Your task to perform on an android device: open app "Facebook Messenger" Image 0: 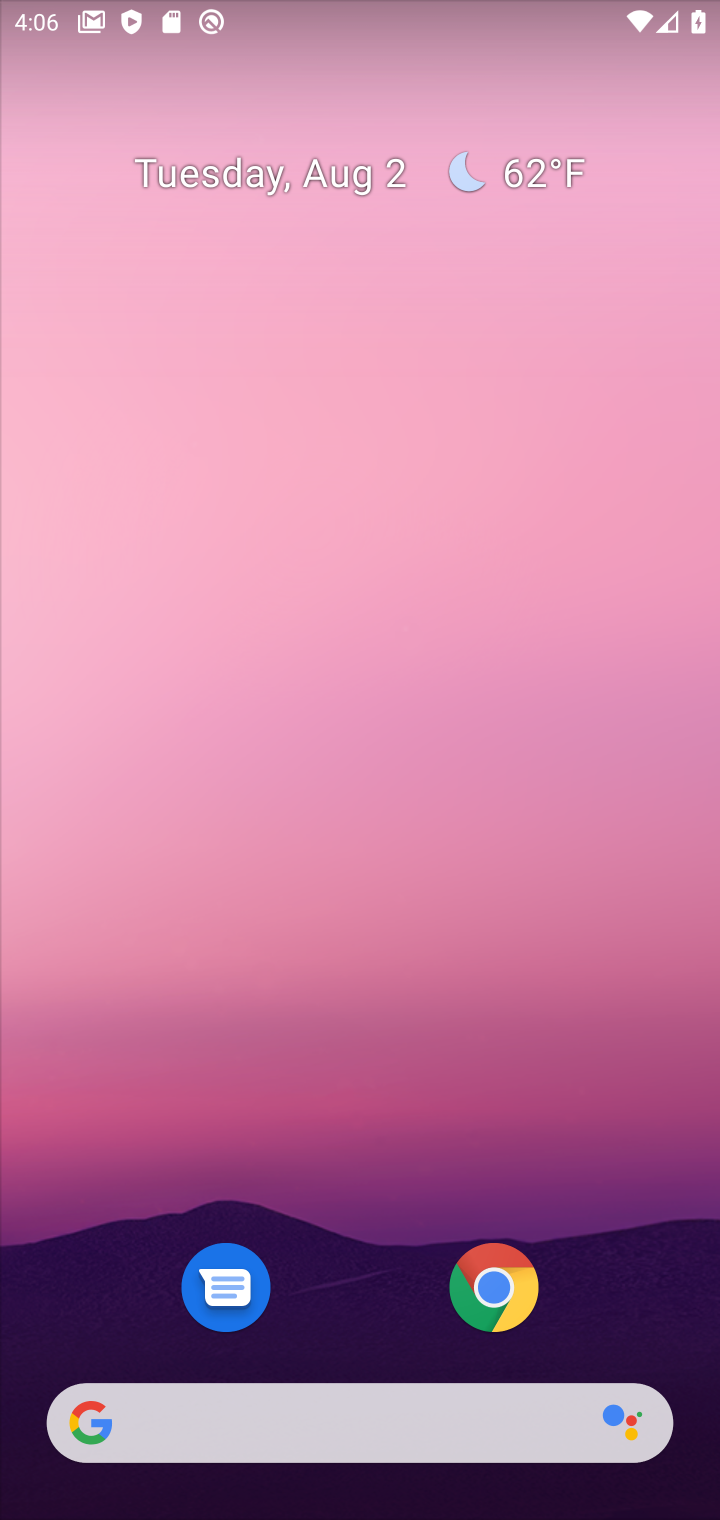
Step 0: drag from (252, 1433) to (282, 426)
Your task to perform on an android device: open app "Facebook Messenger" Image 1: 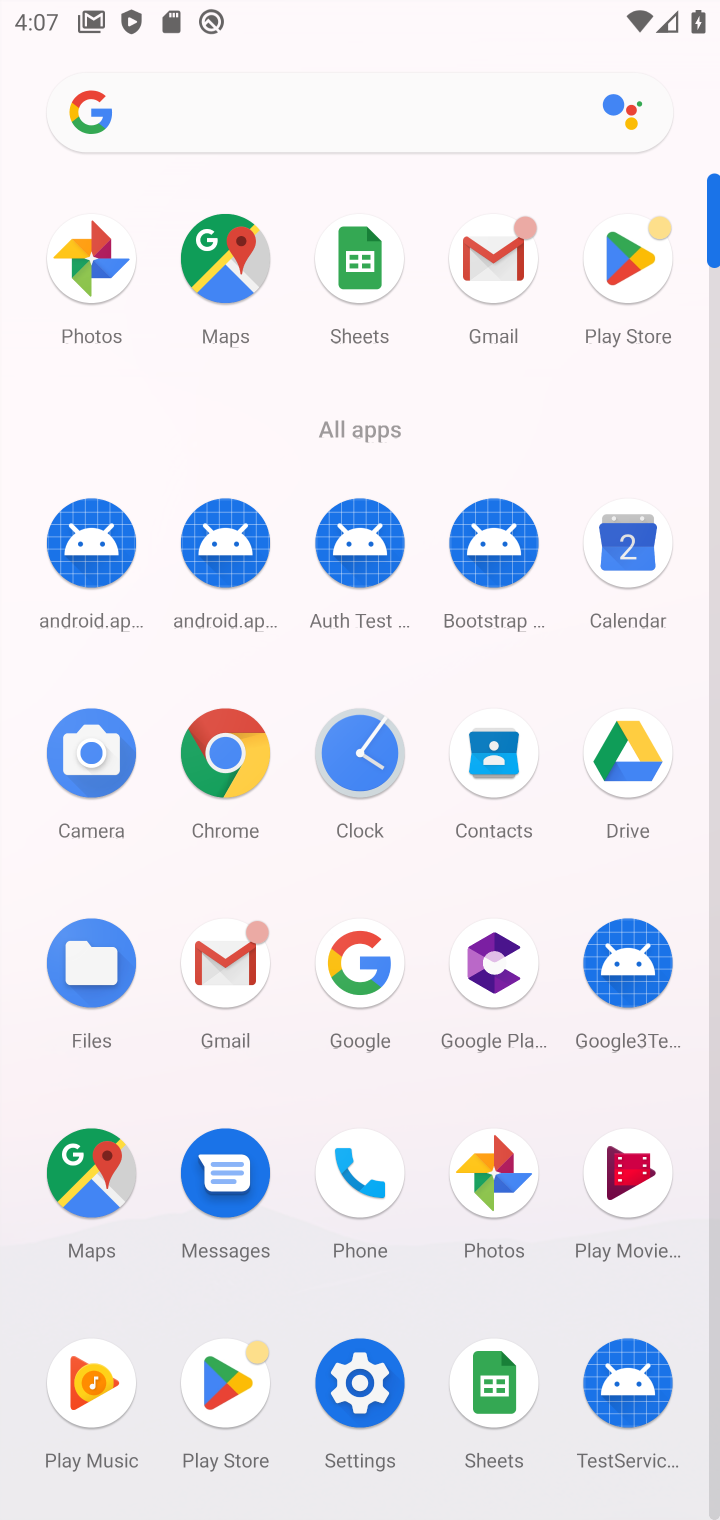
Step 1: click (227, 1395)
Your task to perform on an android device: open app "Facebook Messenger" Image 2: 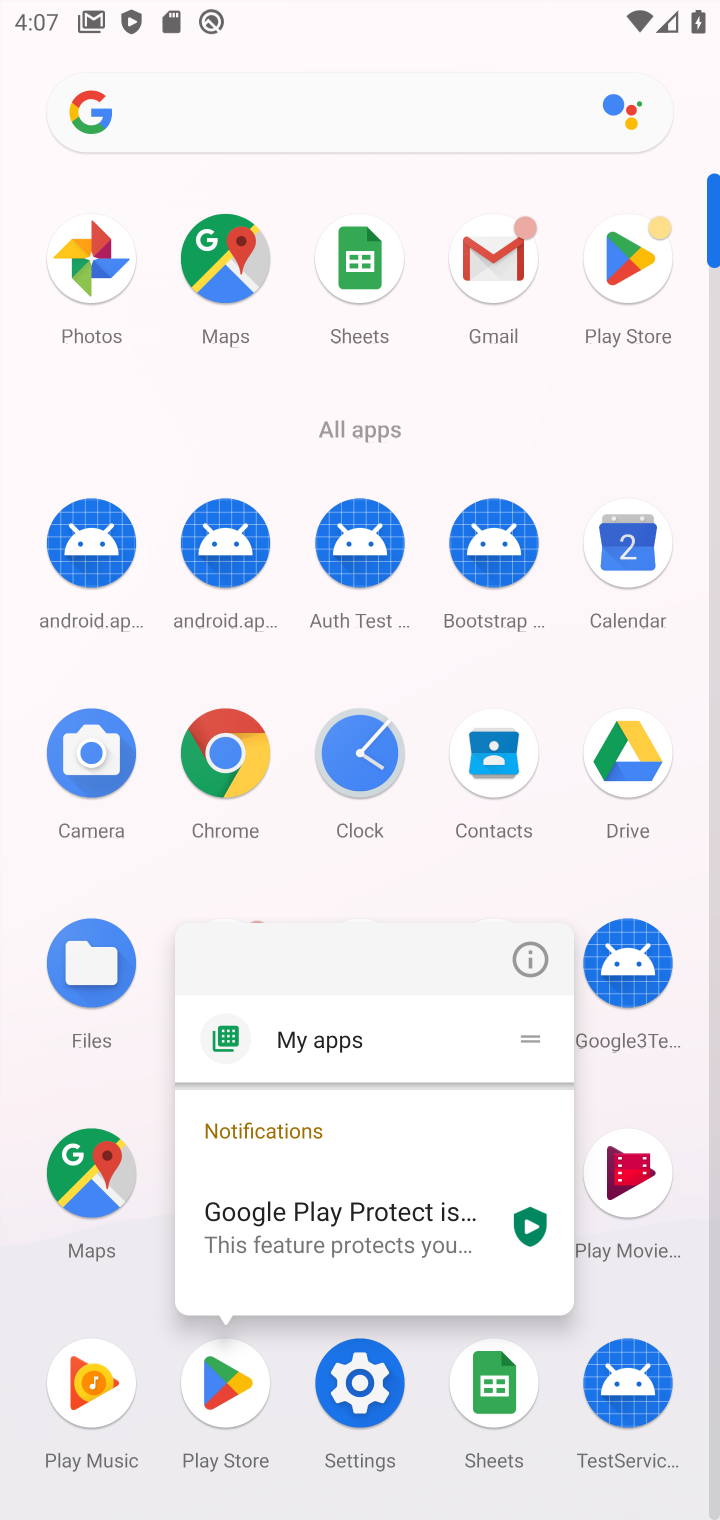
Step 2: click (227, 1395)
Your task to perform on an android device: open app "Facebook Messenger" Image 3: 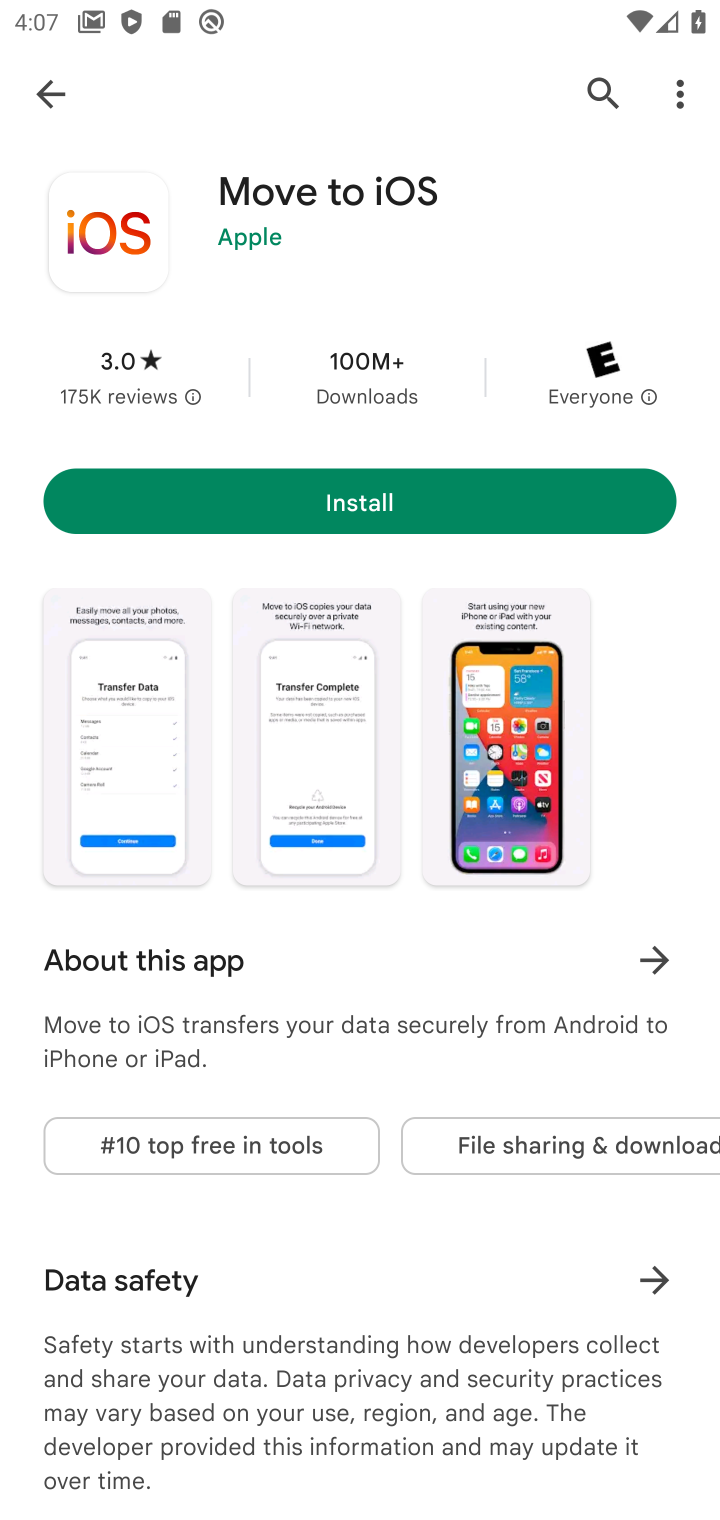
Step 3: click (605, 102)
Your task to perform on an android device: open app "Facebook Messenger" Image 4: 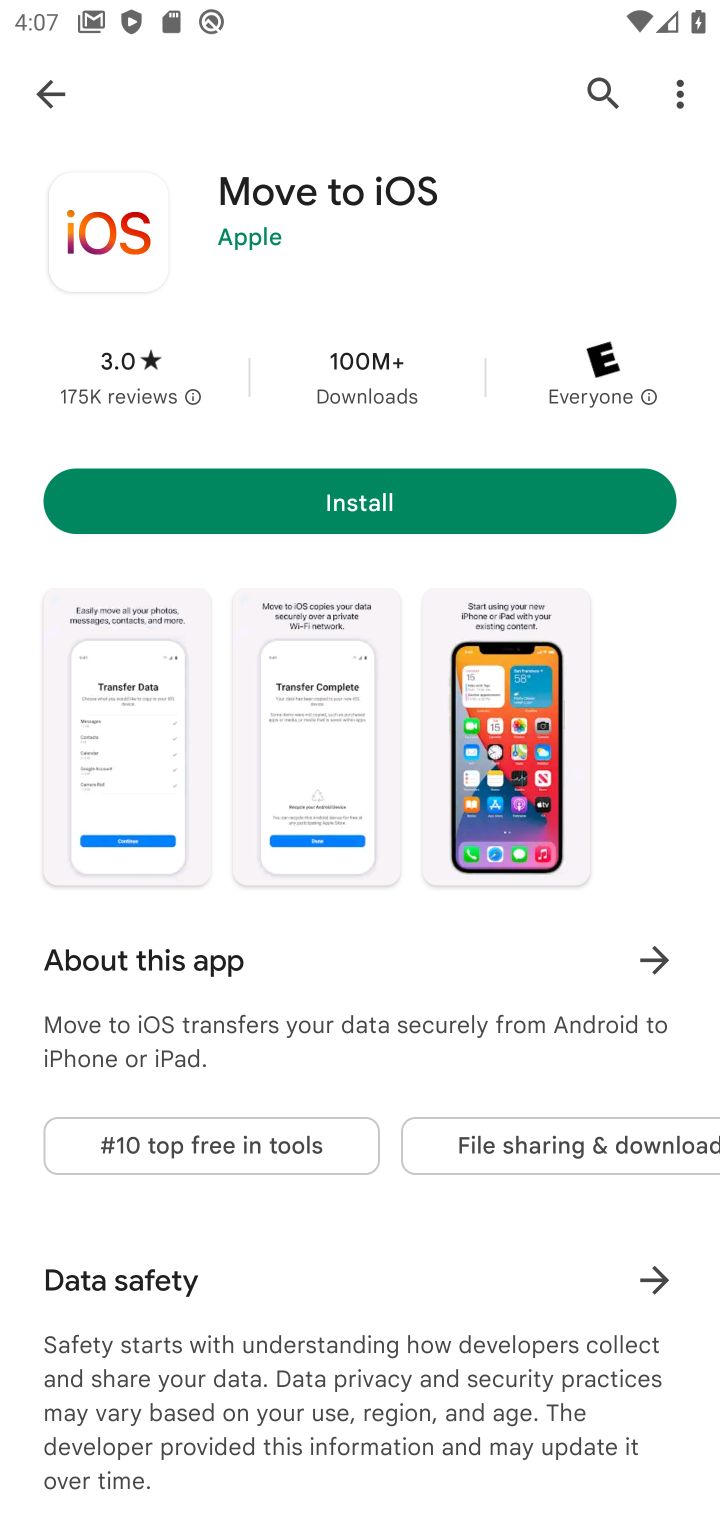
Step 4: click (601, 83)
Your task to perform on an android device: open app "Facebook Messenger" Image 5: 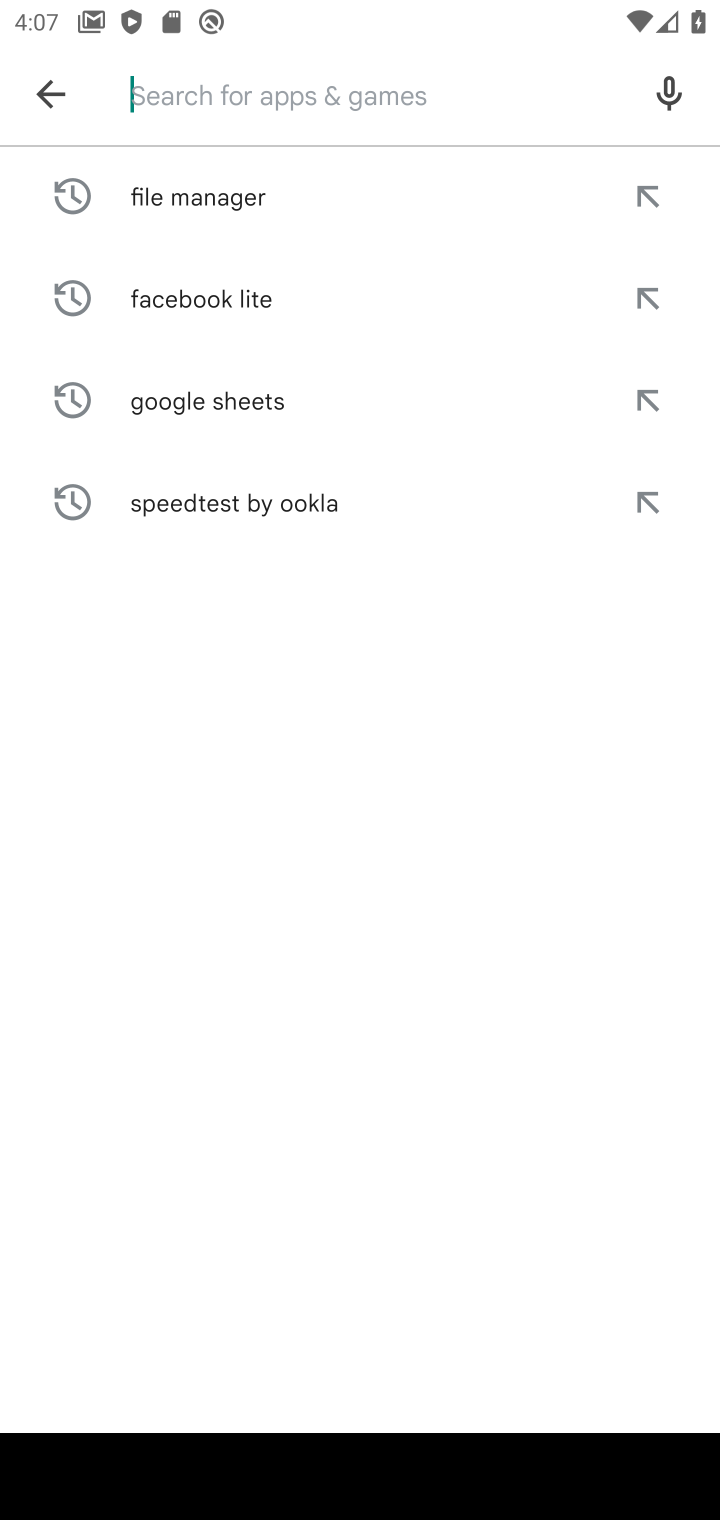
Step 5: type "Facebook Messenger"
Your task to perform on an android device: open app "Facebook Messenger" Image 6: 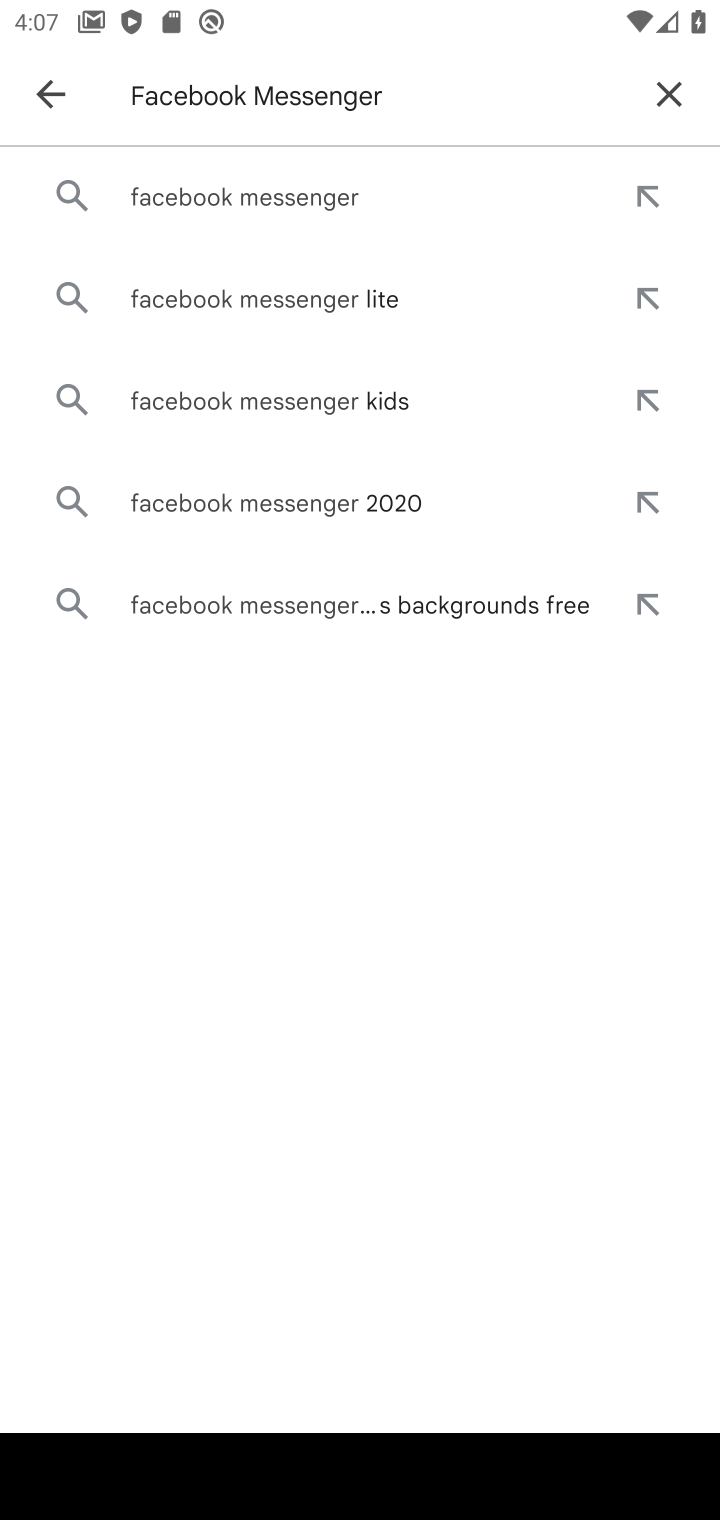
Step 6: click (333, 220)
Your task to perform on an android device: open app "Facebook Messenger" Image 7: 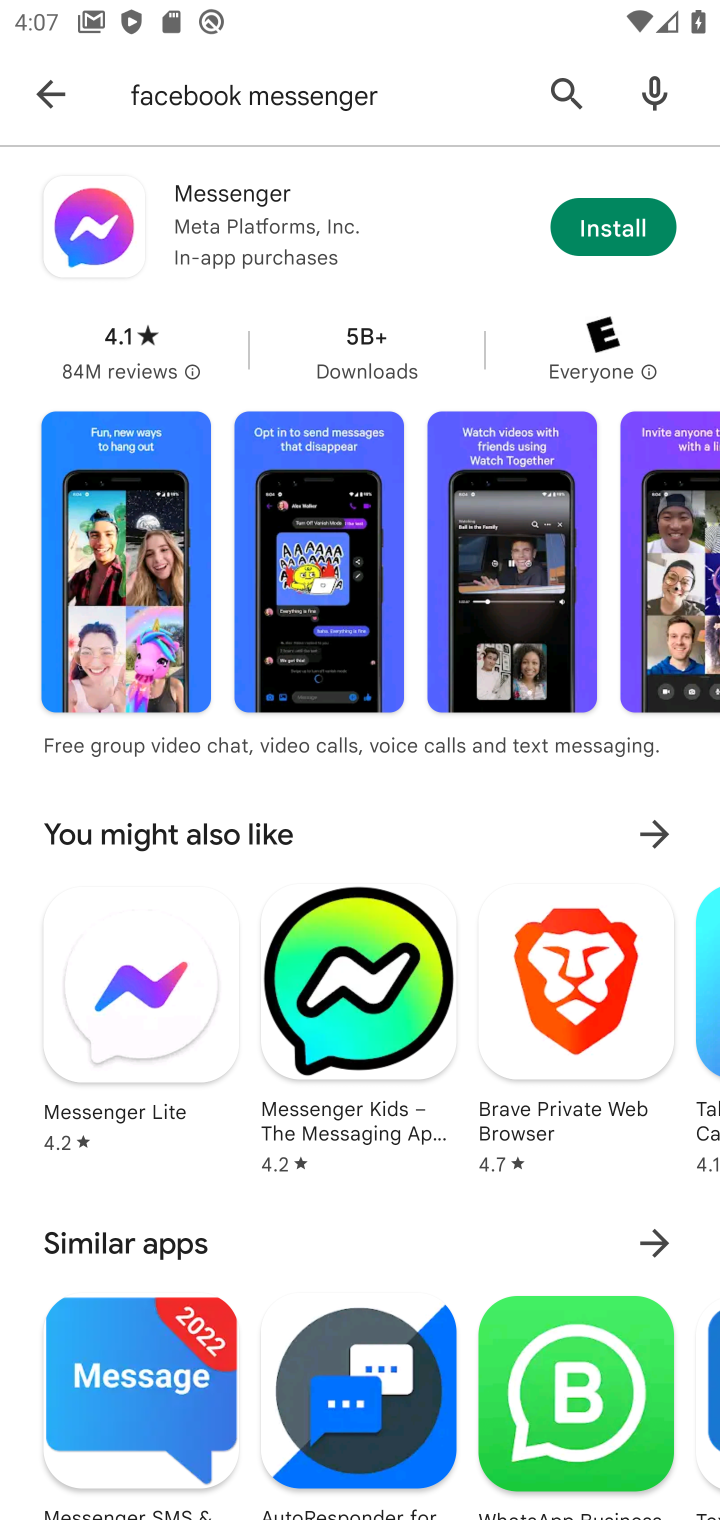
Step 7: task complete